Your task to perform on an android device: set the timer Image 0: 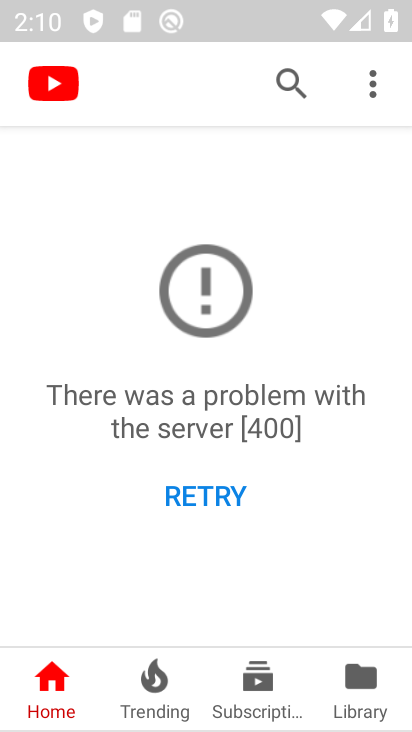
Step 0: press home button
Your task to perform on an android device: set the timer Image 1: 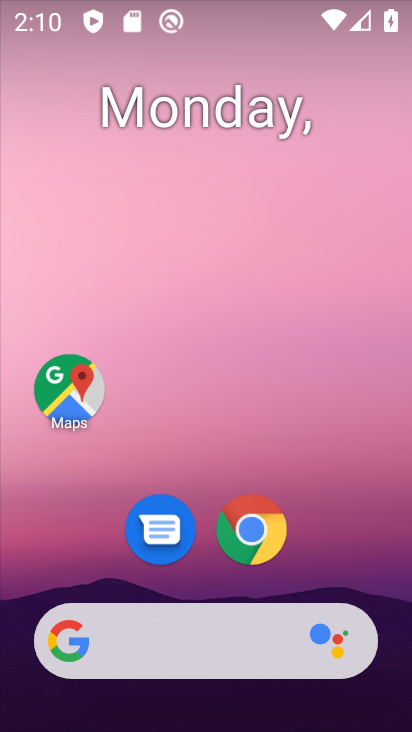
Step 1: drag from (354, 495) to (348, 139)
Your task to perform on an android device: set the timer Image 2: 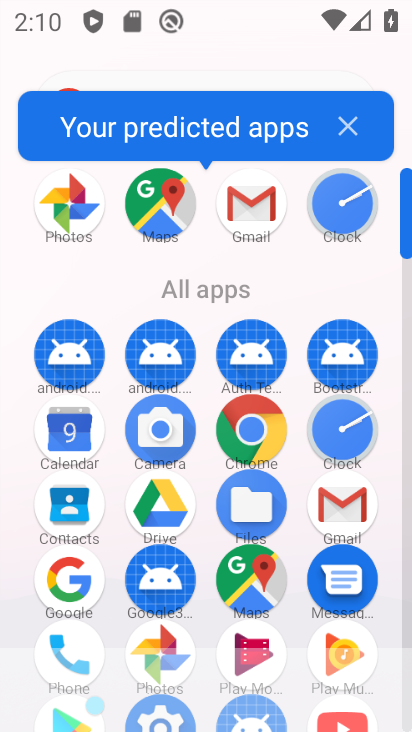
Step 2: click (353, 430)
Your task to perform on an android device: set the timer Image 3: 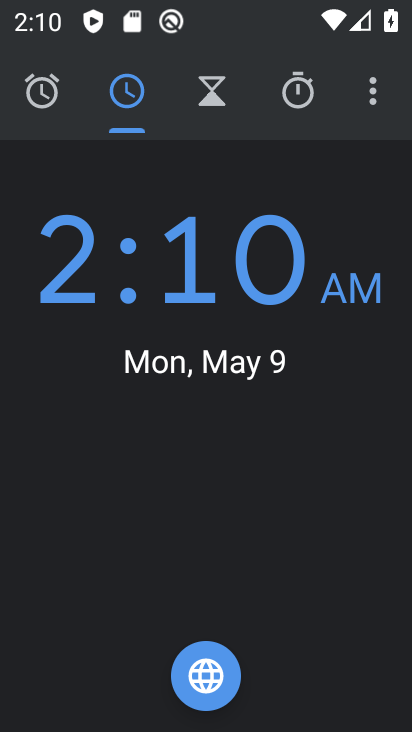
Step 3: click (286, 105)
Your task to perform on an android device: set the timer Image 4: 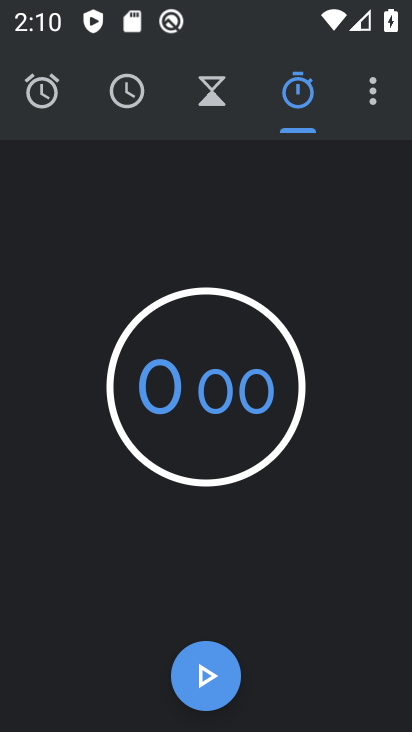
Step 4: click (197, 105)
Your task to perform on an android device: set the timer Image 5: 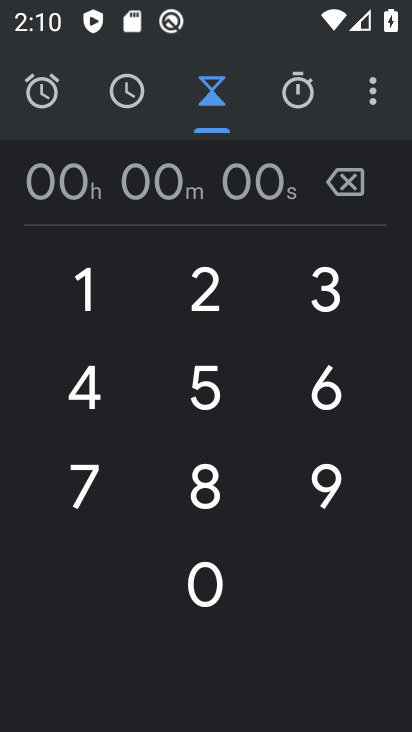
Step 5: click (87, 277)
Your task to perform on an android device: set the timer Image 6: 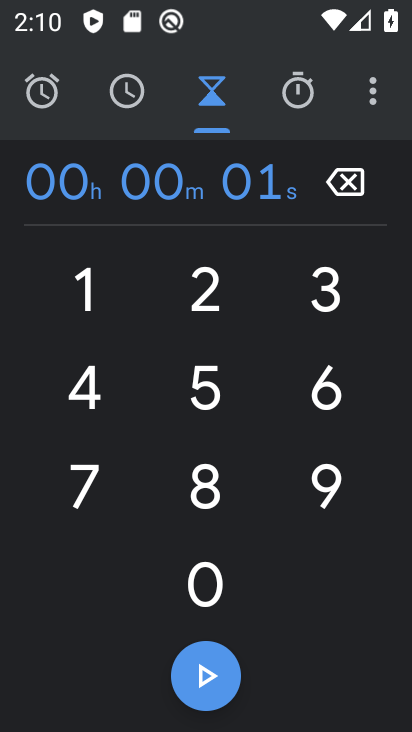
Step 6: click (183, 368)
Your task to perform on an android device: set the timer Image 7: 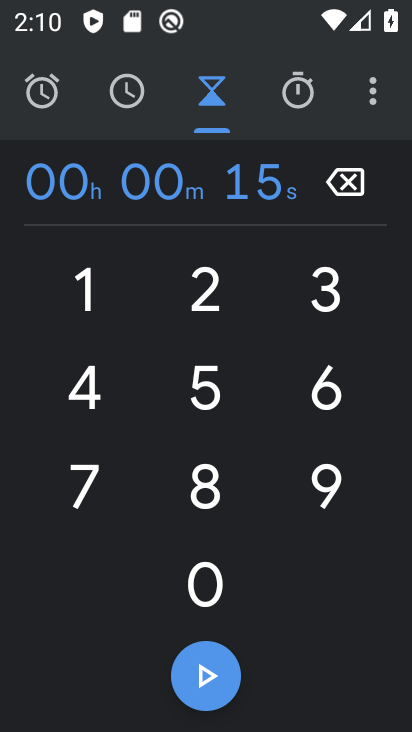
Step 7: click (229, 678)
Your task to perform on an android device: set the timer Image 8: 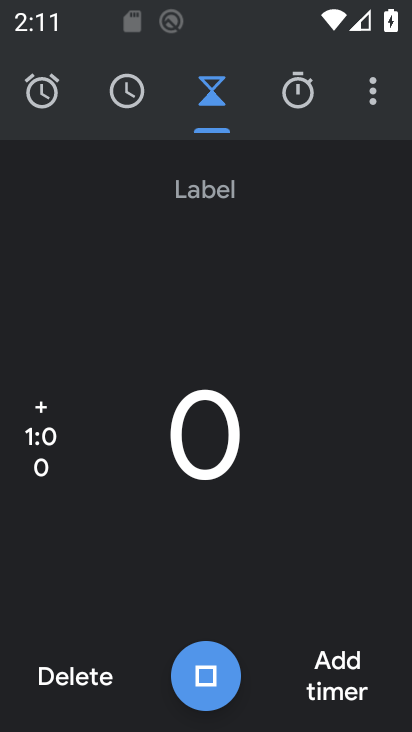
Step 8: click (229, 672)
Your task to perform on an android device: set the timer Image 9: 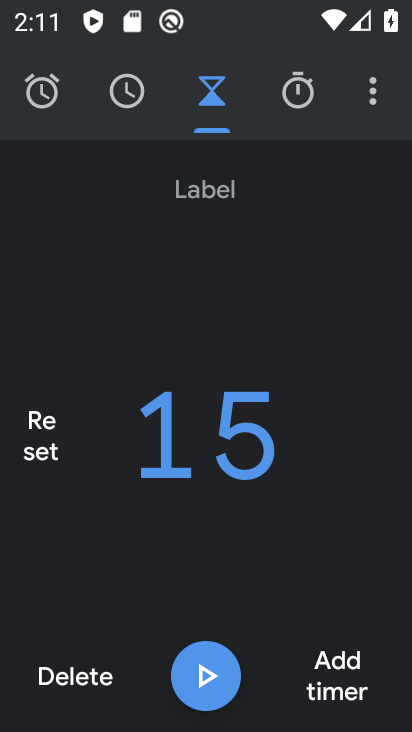
Step 9: click (77, 246)
Your task to perform on an android device: set the timer Image 10: 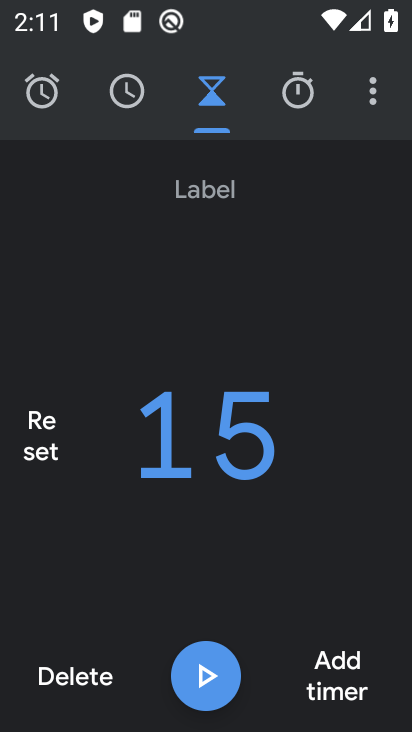
Step 10: task complete